Your task to perform on an android device: open app "Expedia: Hotels, Flights & Car" Image 0: 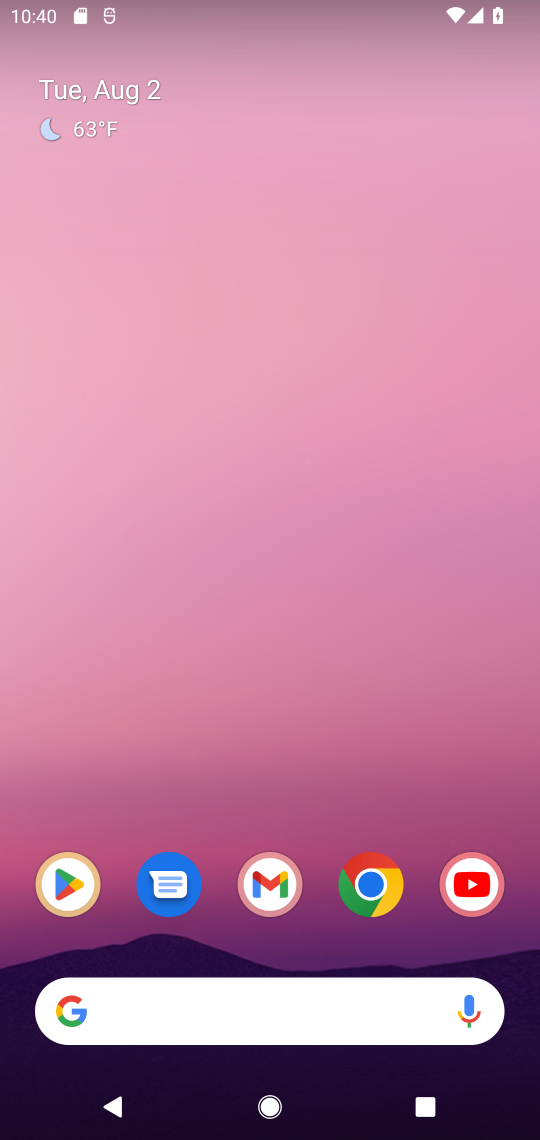
Step 0: click (69, 902)
Your task to perform on an android device: open app "Expedia: Hotels, Flights & Car" Image 1: 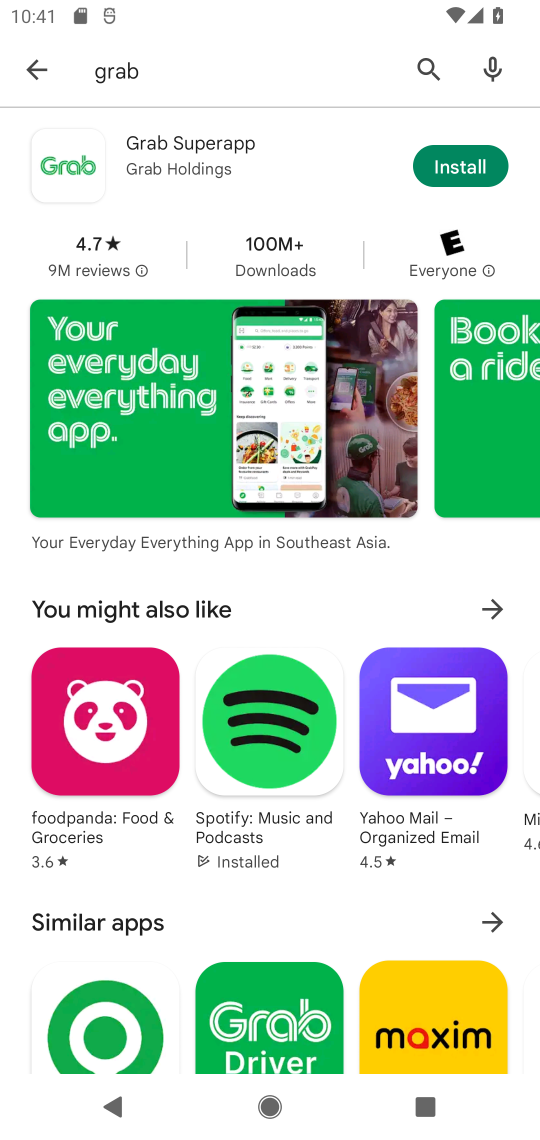
Step 1: click (230, 82)
Your task to perform on an android device: open app "Expedia: Hotels, Flights & Car" Image 2: 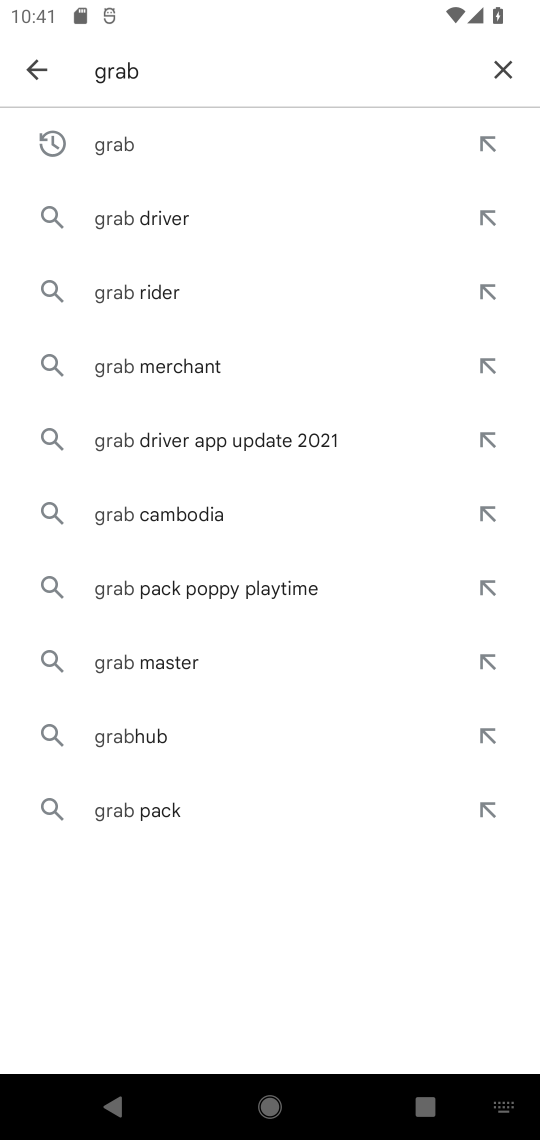
Step 2: click (498, 62)
Your task to perform on an android device: open app "Expedia: Hotels, Flights & Car" Image 3: 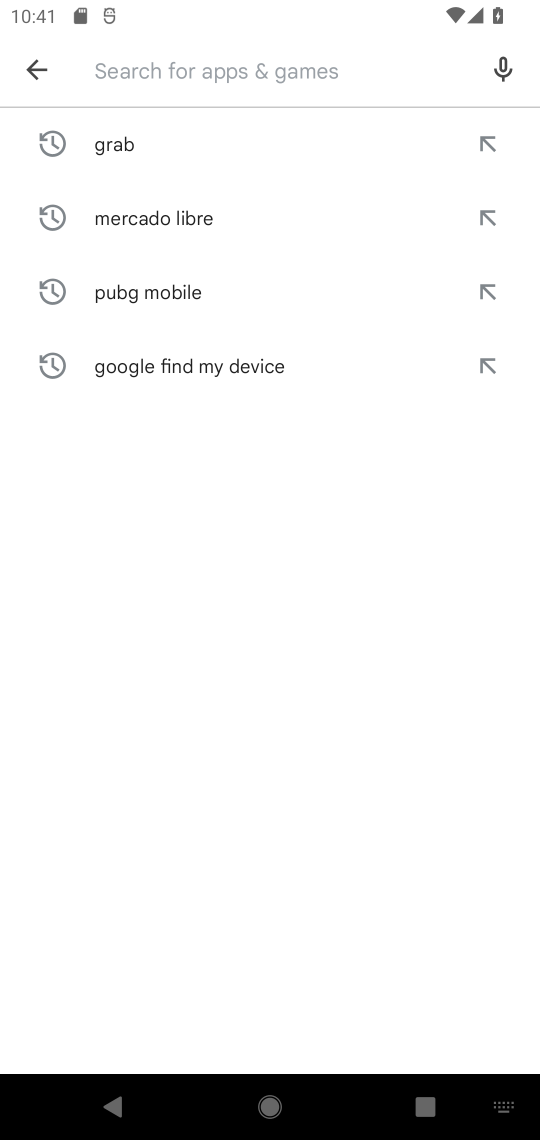
Step 3: type "Expedia"
Your task to perform on an android device: open app "Expedia: Hotels, Flights & Car" Image 4: 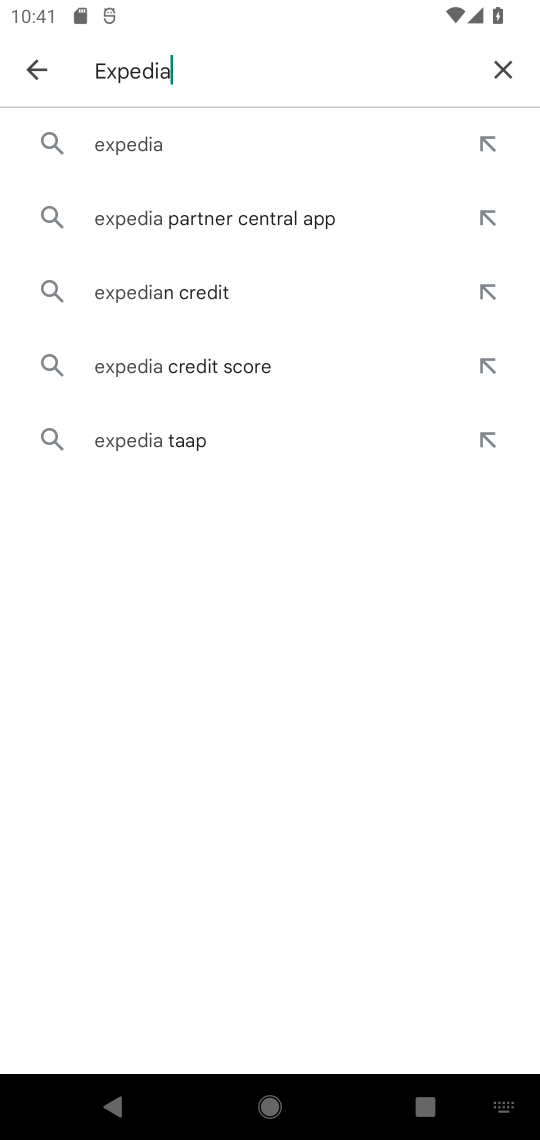
Step 4: click (156, 129)
Your task to perform on an android device: open app "Expedia: Hotels, Flights & Car" Image 5: 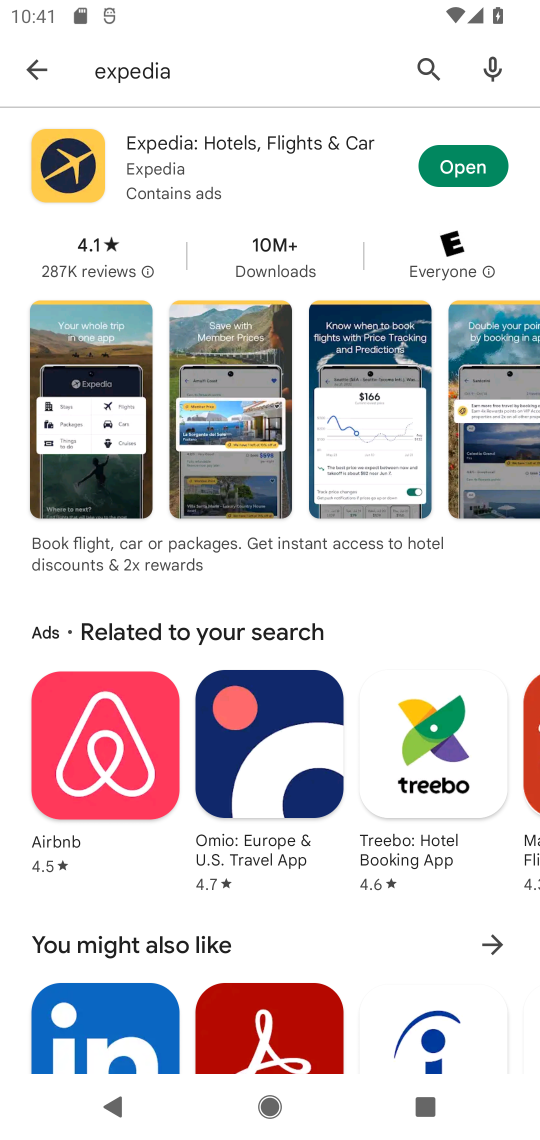
Step 5: click (468, 163)
Your task to perform on an android device: open app "Expedia: Hotels, Flights & Car" Image 6: 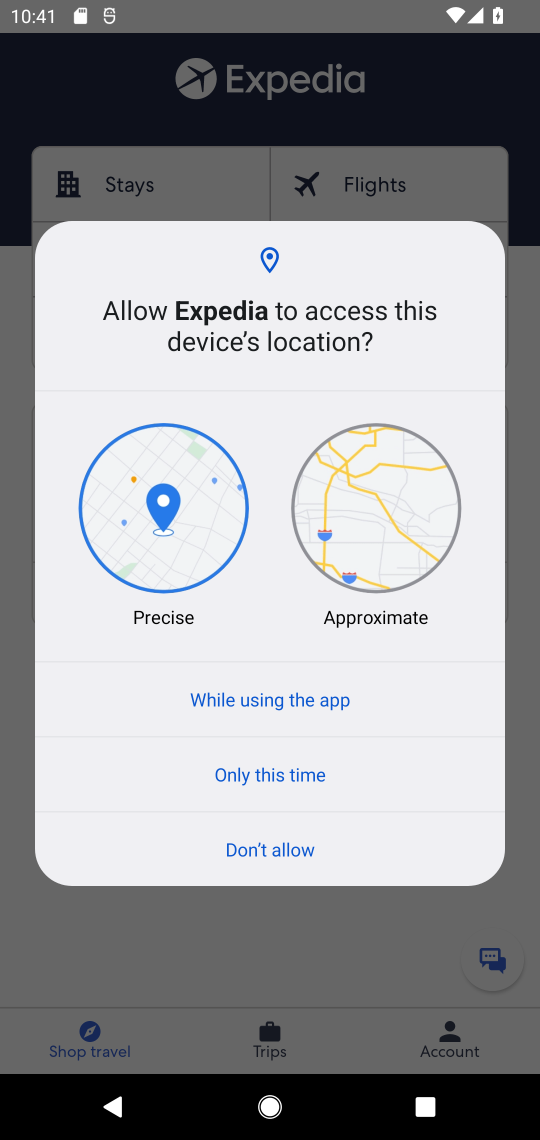
Step 6: click (293, 695)
Your task to perform on an android device: open app "Expedia: Hotels, Flights & Car" Image 7: 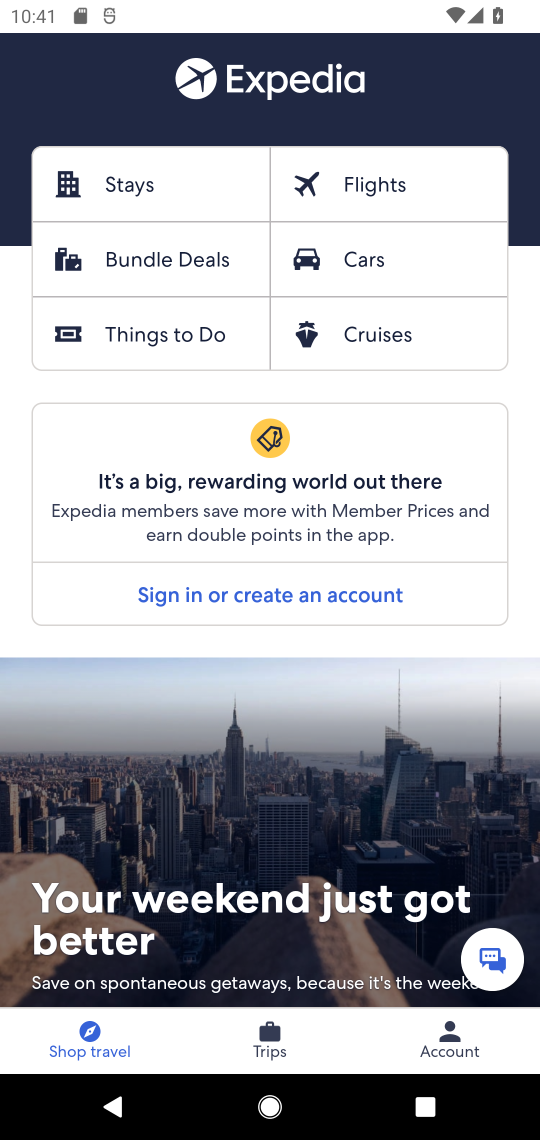
Step 7: task complete